Your task to perform on an android device: turn on the 24-hour format for clock Image 0: 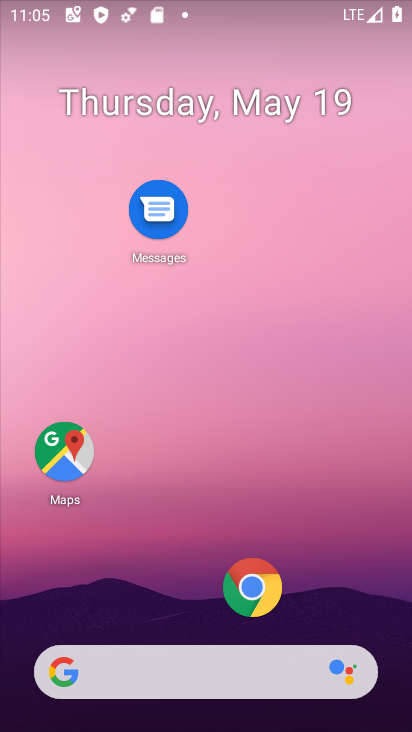
Step 0: drag from (158, 600) to (218, 67)
Your task to perform on an android device: turn on the 24-hour format for clock Image 1: 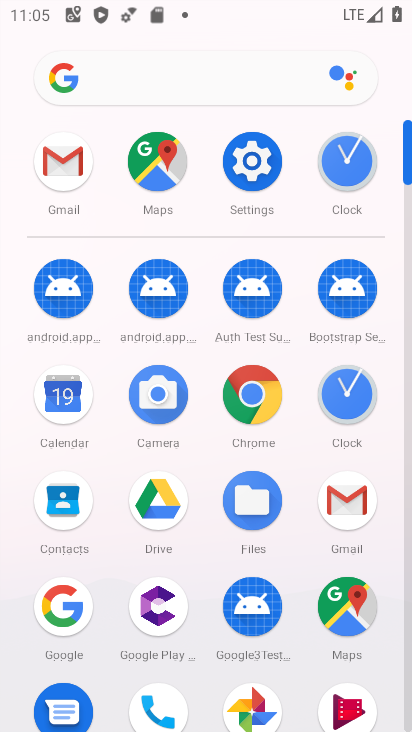
Step 1: click (353, 181)
Your task to perform on an android device: turn on the 24-hour format for clock Image 2: 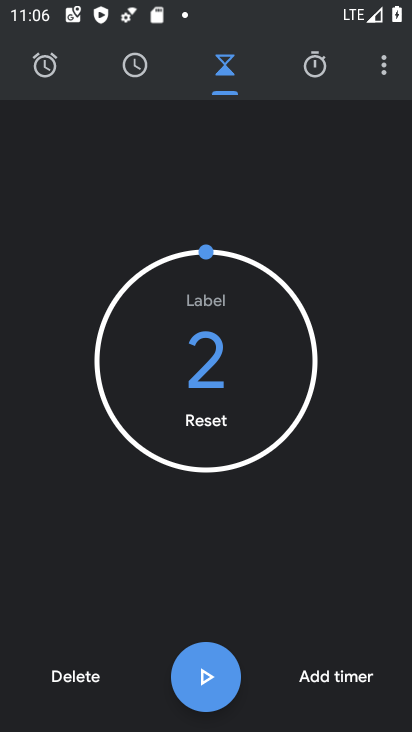
Step 2: click (396, 59)
Your task to perform on an android device: turn on the 24-hour format for clock Image 3: 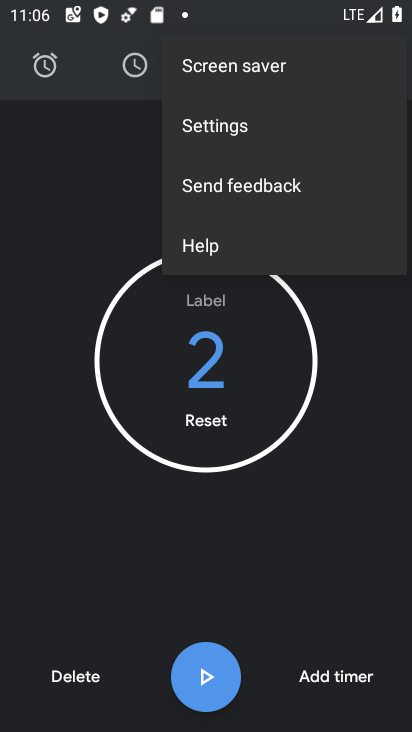
Step 3: click (245, 121)
Your task to perform on an android device: turn on the 24-hour format for clock Image 4: 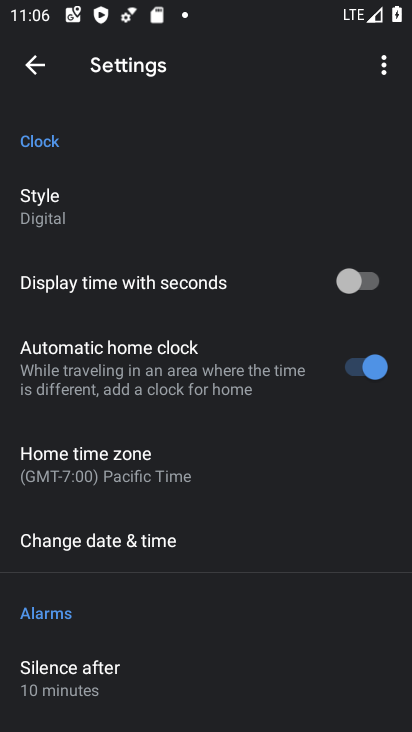
Step 4: drag from (122, 662) to (161, 301)
Your task to perform on an android device: turn on the 24-hour format for clock Image 5: 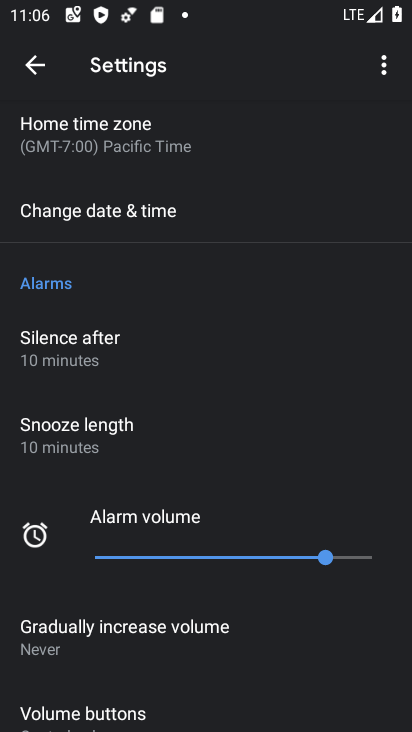
Step 5: click (107, 214)
Your task to perform on an android device: turn on the 24-hour format for clock Image 6: 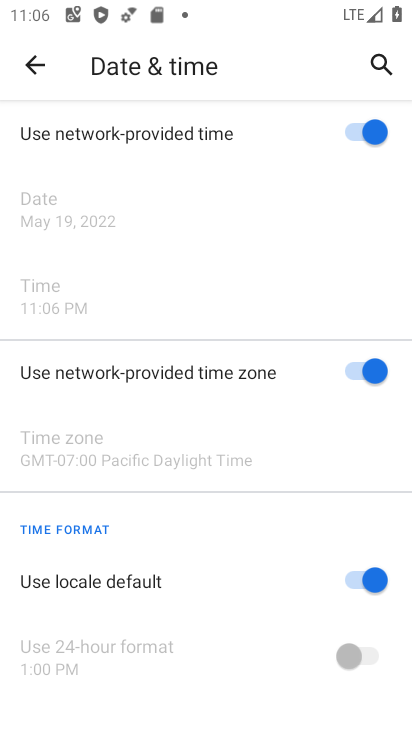
Step 6: click (366, 576)
Your task to perform on an android device: turn on the 24-hour format for clock Image 7: 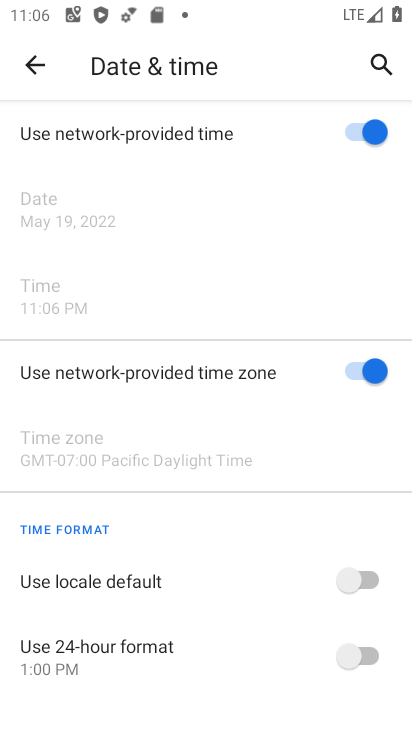
Step 7: click (374, 653)
Your task to perform on an android device: turn on the 24-hour format for clock Image 8: 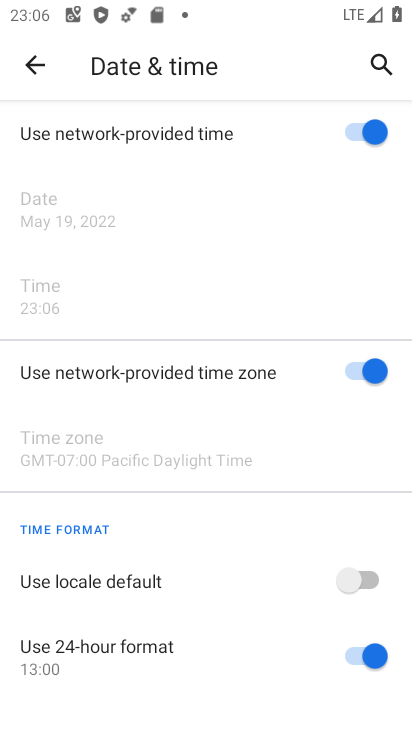
Step 8: task complete